Your task to perform on an android device: change the clock style Image 0: 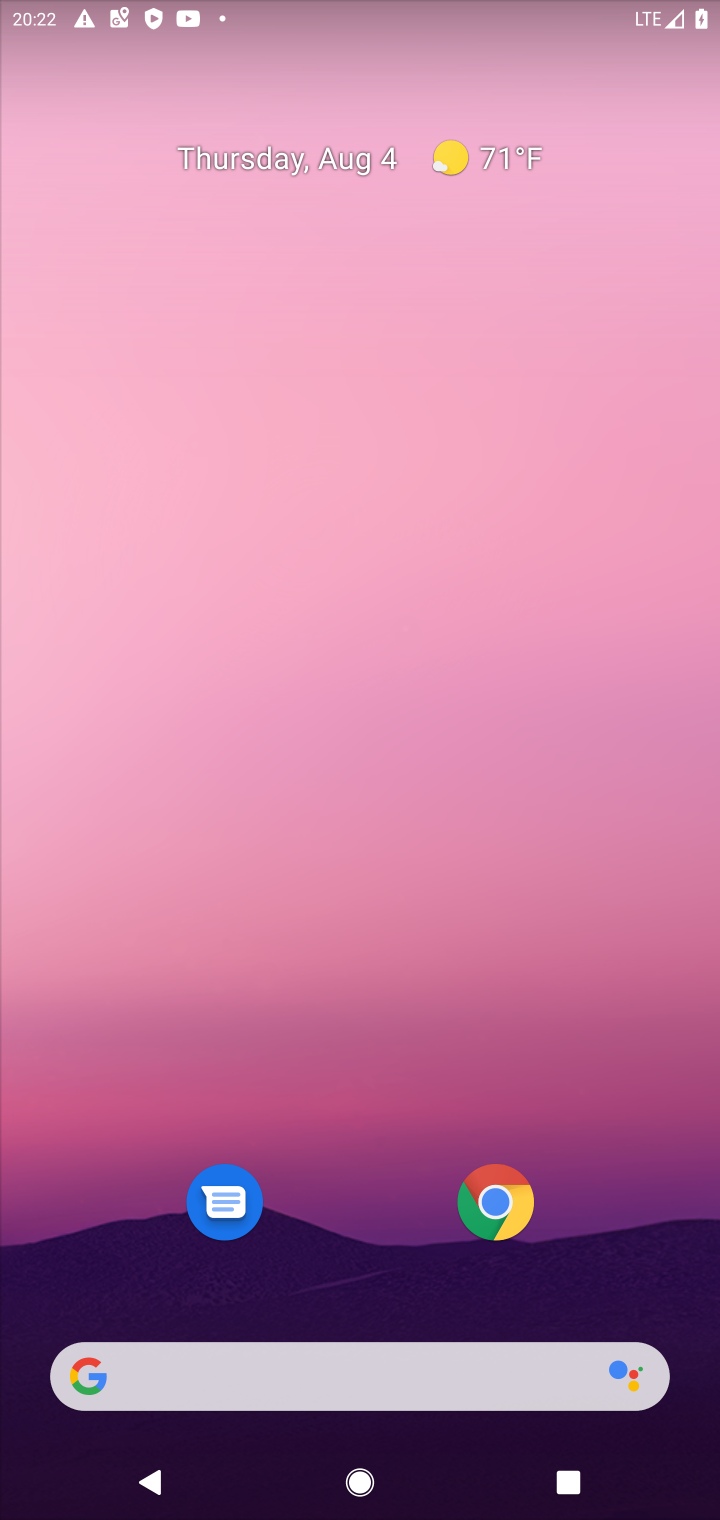
Step 0: drag from (420, 832) to (420, 352)
Your task to perform on an android device: change the clock style Image 1: 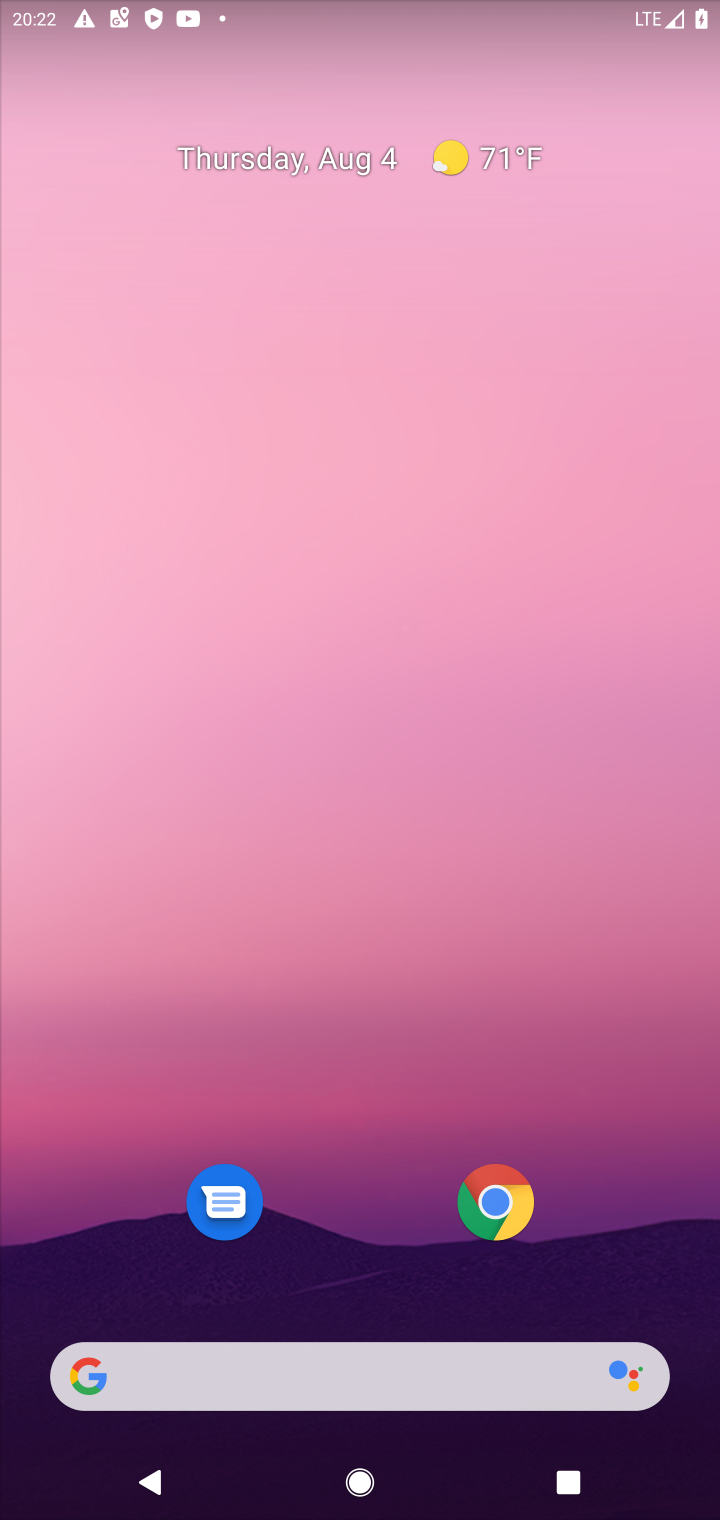
Step 1: drag from (344, 1238) to (372, 291)
Your task to perform on an android device: change the clock style Image 2: 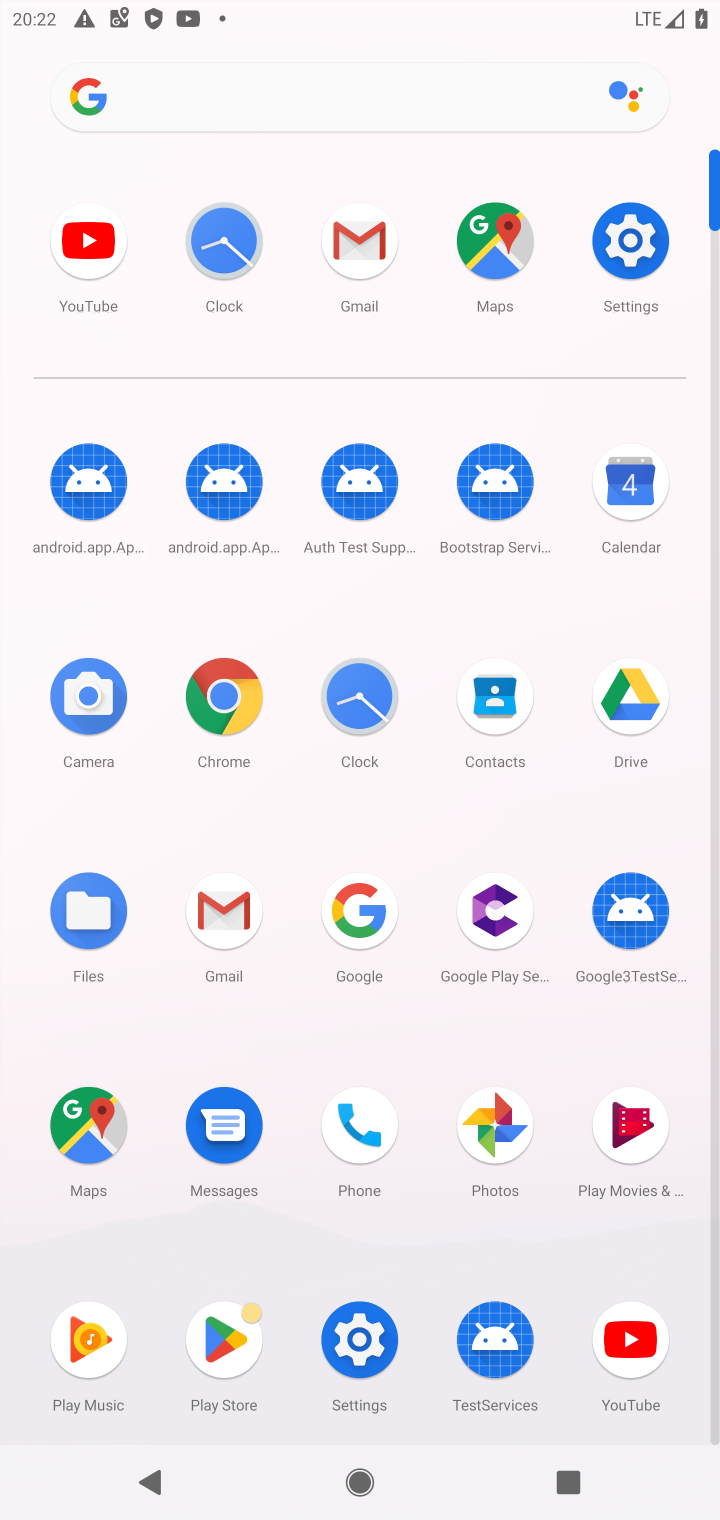
Step 2: click (379, 692)
Your task to perform on an android device: change the clock style Image 3: 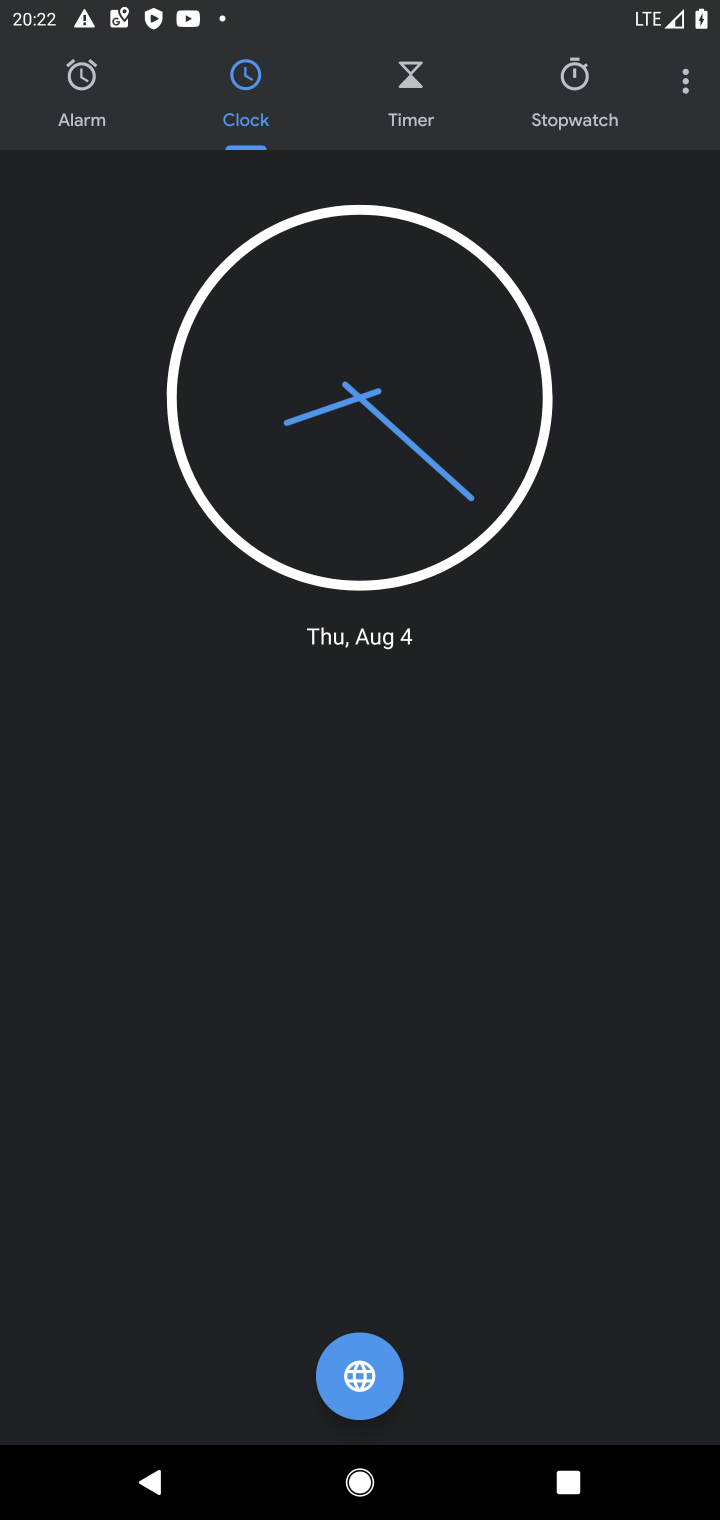
Step 3: click (679, 87)
Your task to perform on an android device: change the clock style Image 4: 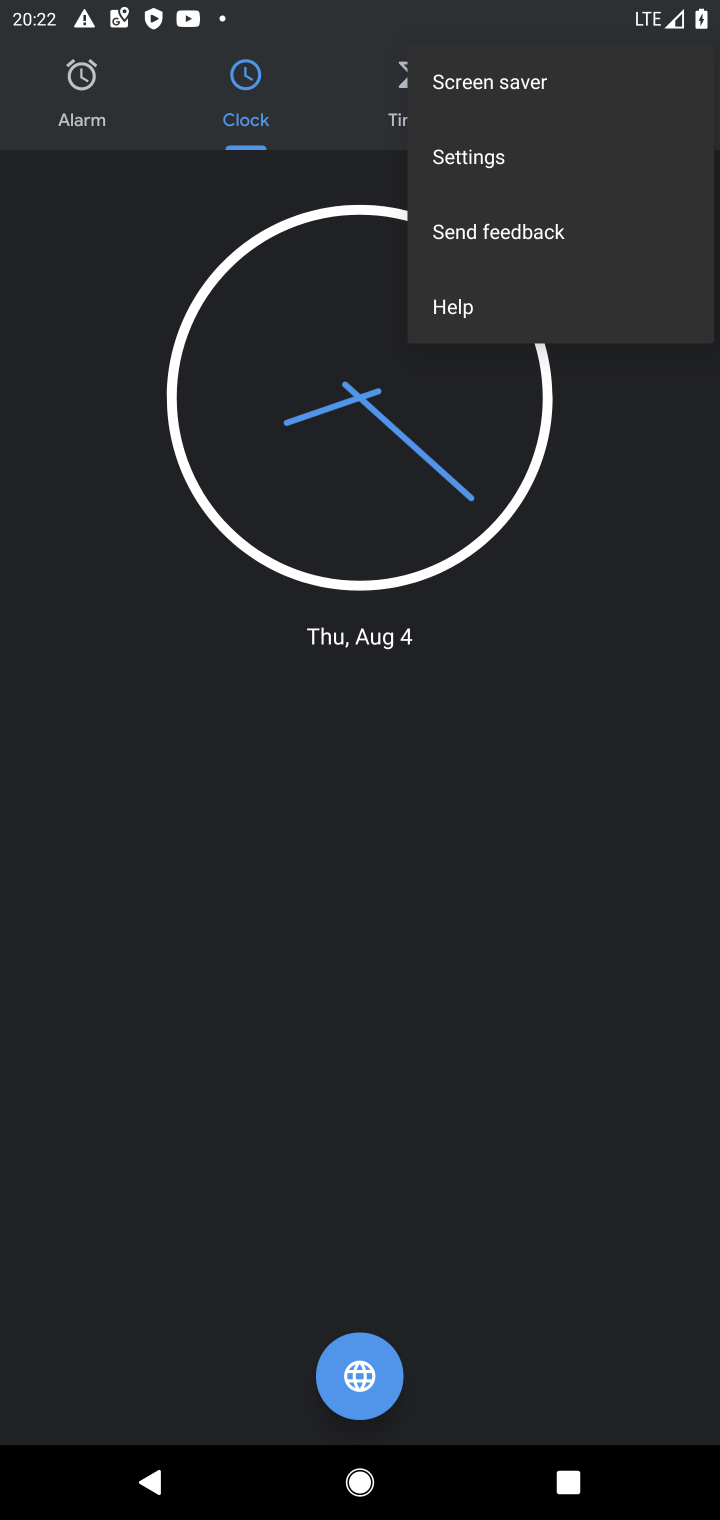
Step 4: click (517, 170)
Your task to perform on an android device: change the clock style Image 5: 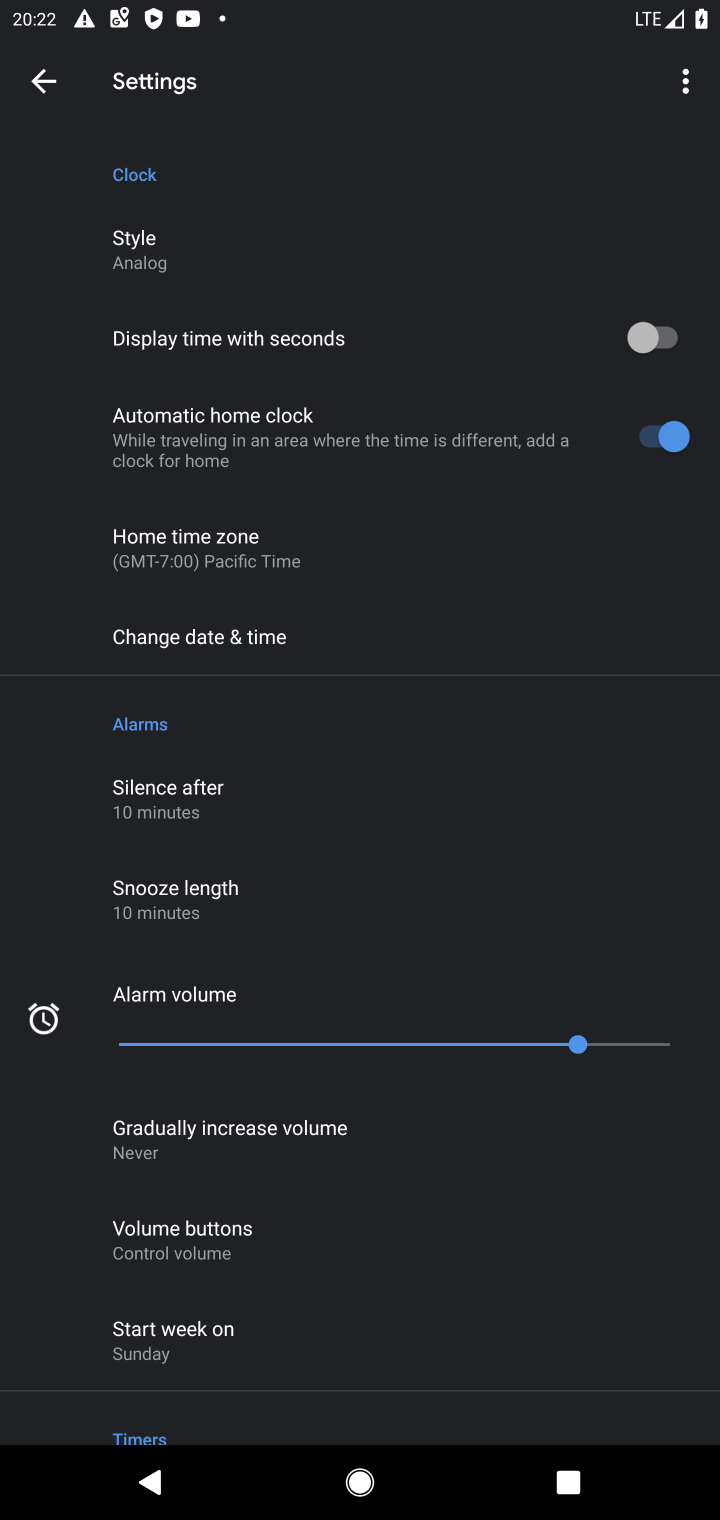
Step 5: click (243, 248)
Your task to perform on an android device: change the clock style Image 6: 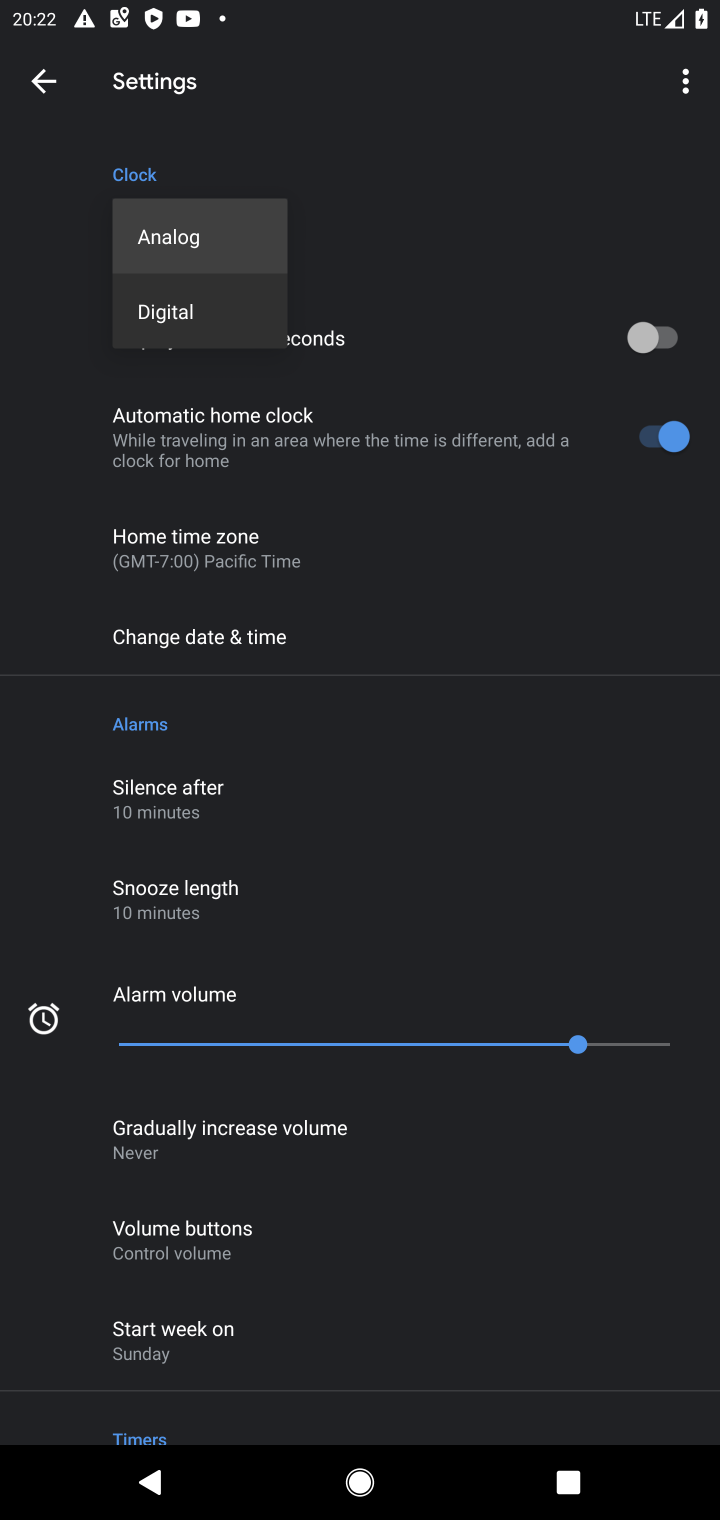
Step 6: click (224, 307)
Your task to perform on an android device: change the clock style Image 7: 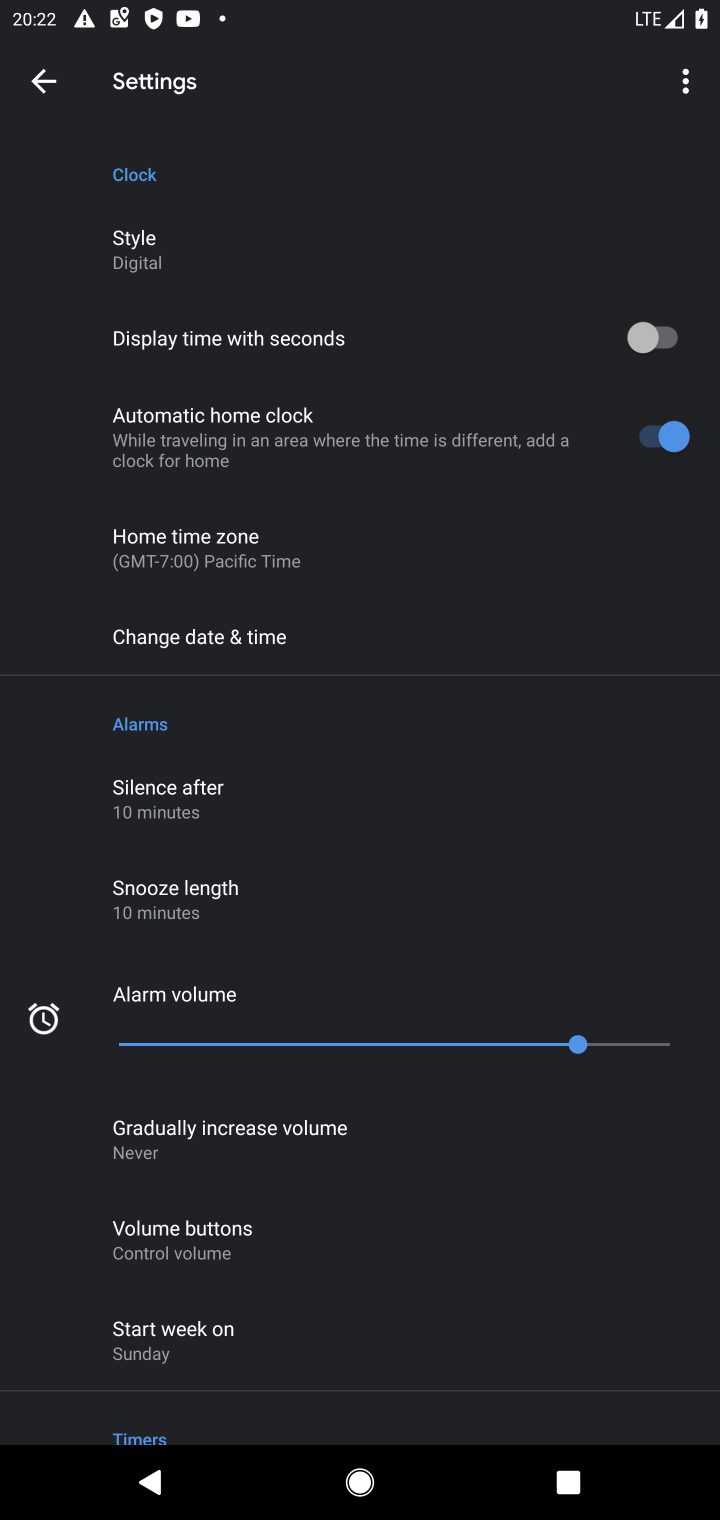
Step 7: task complete